Your task to perform on an android device: Open the stopwatch Image 0: 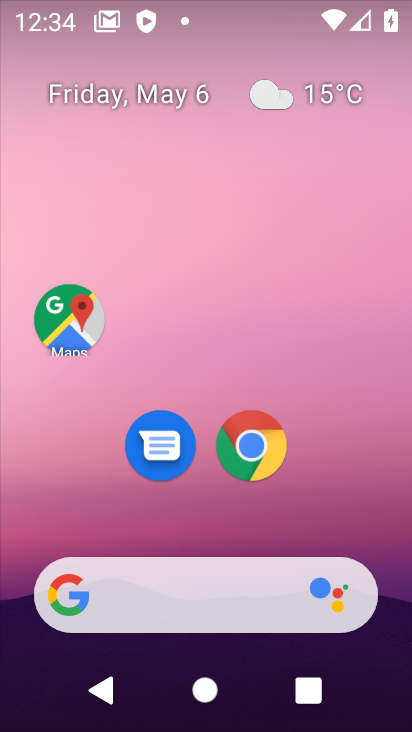
Step 0: drag from (364, 537) to (142, 113)
Your task to perform on an android device: Open the stopwatch Image 1: 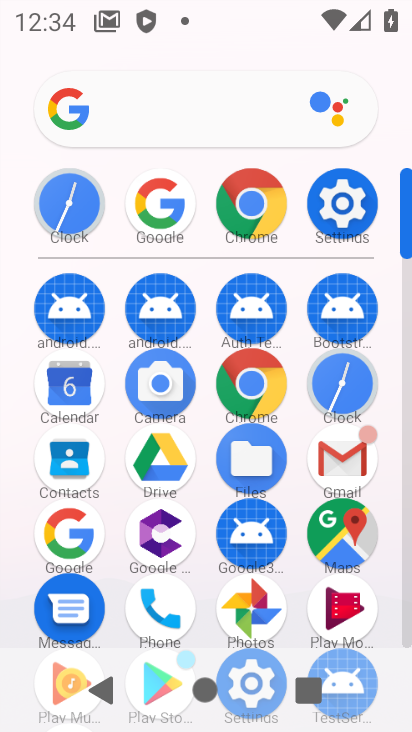
Step 1: click (344, 394)
Your task to perform on an android device: Open the stopwatch Image 2: 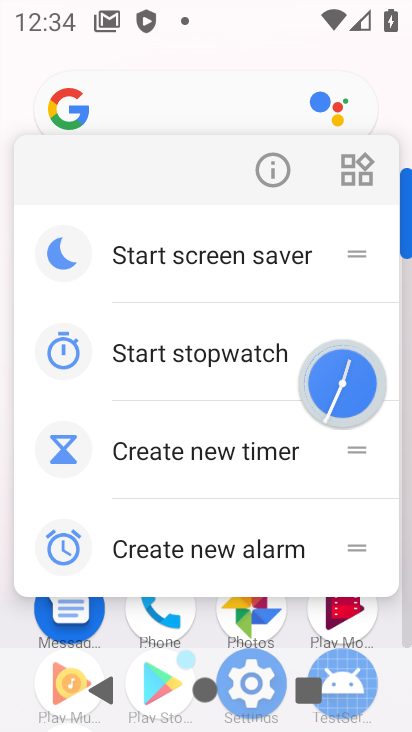
Step 2: click (344, 395)
Your task to perform on an android device: Open the stopwatch Image 3: 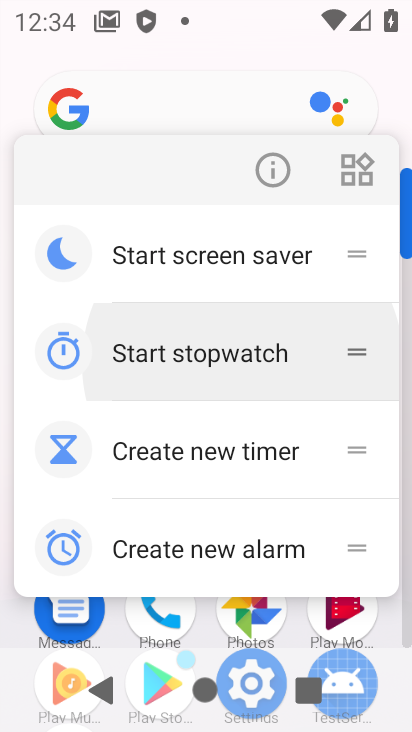
Step 3: click (341, 398)
Your task to perform on an android device: Open the stopwatch Image 4: 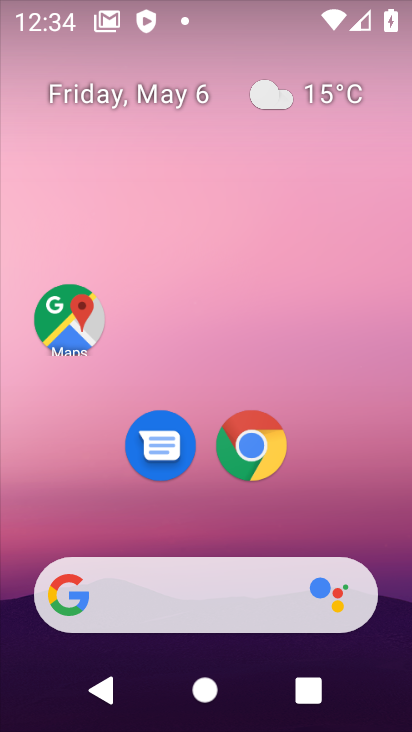
Step 4: drag from (367, 608) to (236, 125)
Your task to perform on an android device: Open the stopwatch Image 5: 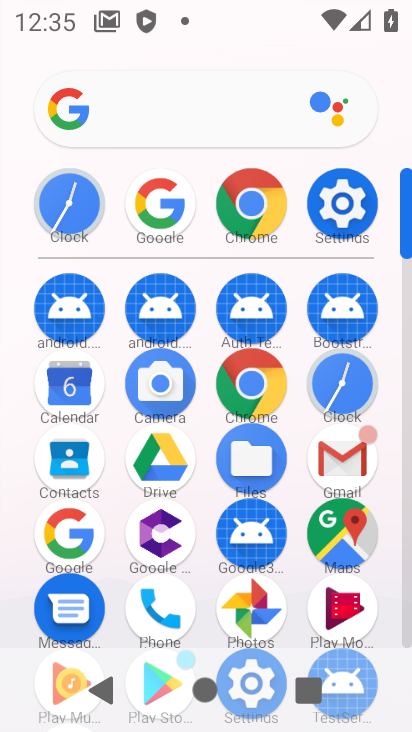
Step 5: click (335, 385)
Your task to perform on an android device: Open the stopwatch Image 6: 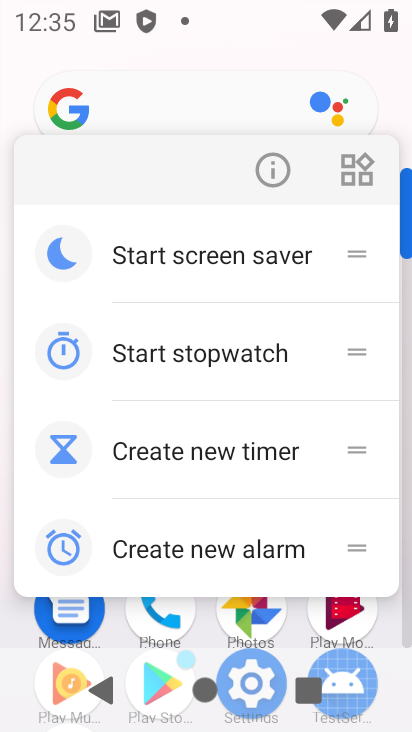
Step 6: click (336, 386)
Your task to perform on an android device: Open the stopwatch Image 7: 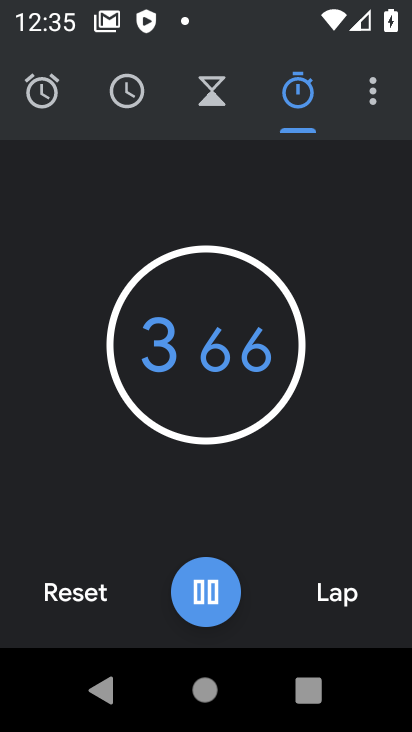
Step 7: click (212, 88)
Your task to perform on an android device: Open the stopwatch Image 8: 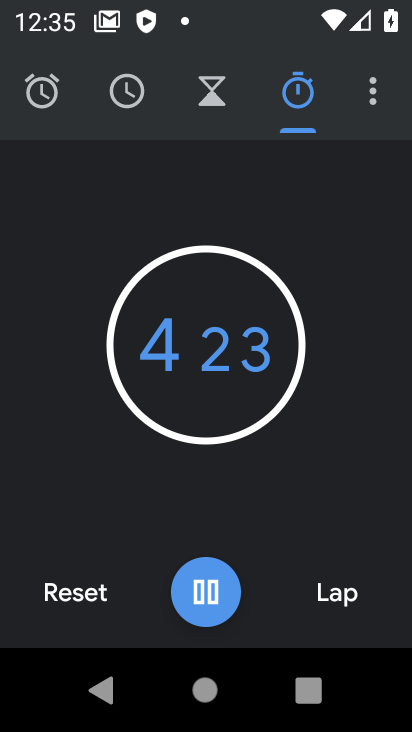
Step 8: click (213, 88)
Your task to perform on an android device: Open the stopwatch Image 9: 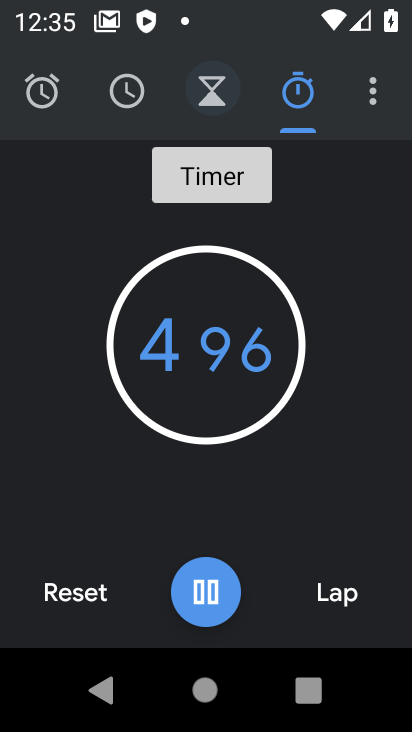
Step 9: click (213, 88)
Your task to perform on an android device: Open the stopwatch Image 10: 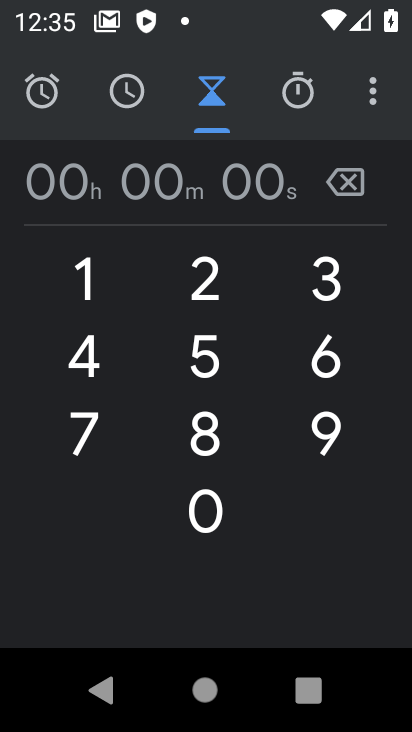
Step 10: click (299, 96)
Your task to perform on an android device: Open the stopwatch Image 11: 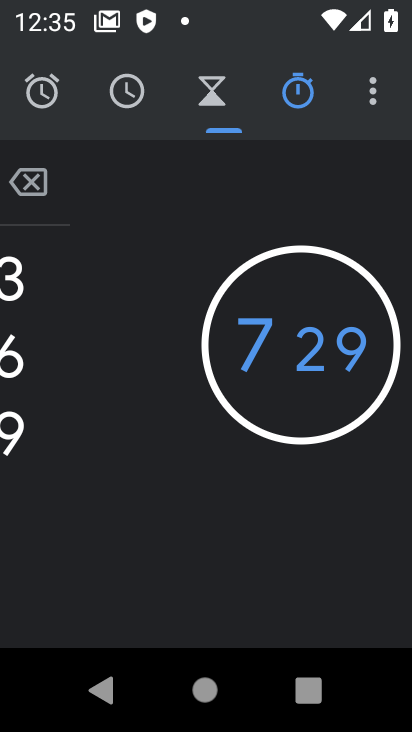
Step 11: click (299, 96)
Your task to perform on an android device: Open the stopwatch Image 12: 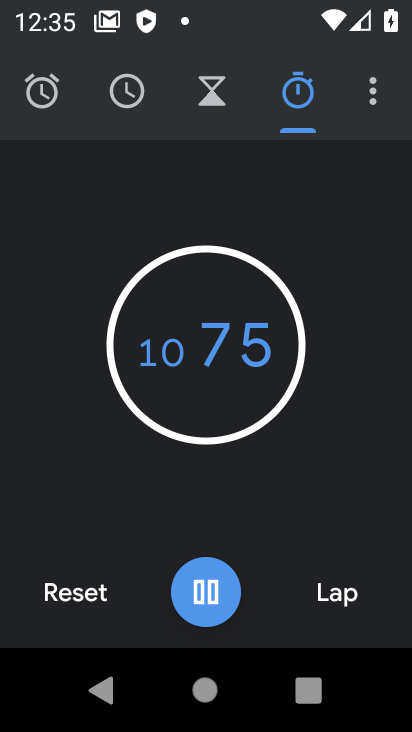
Step 12: click (205, 596)
Your task to perform on an android device: Open the stopwatch Image 13: 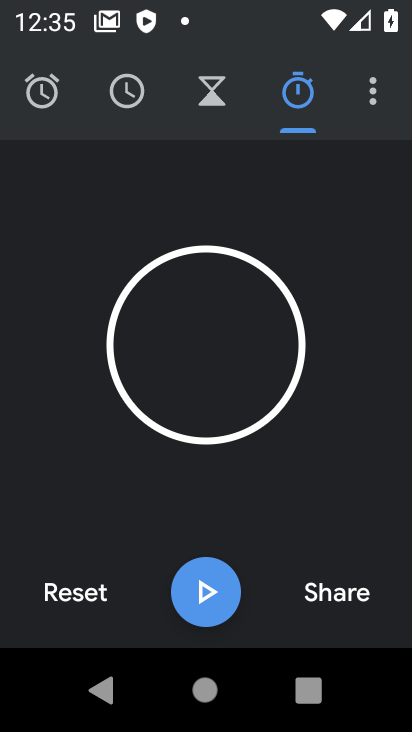
Step 13: task complete